Your task to perform on an android device: clear all cookies in the chrome app Image 0: 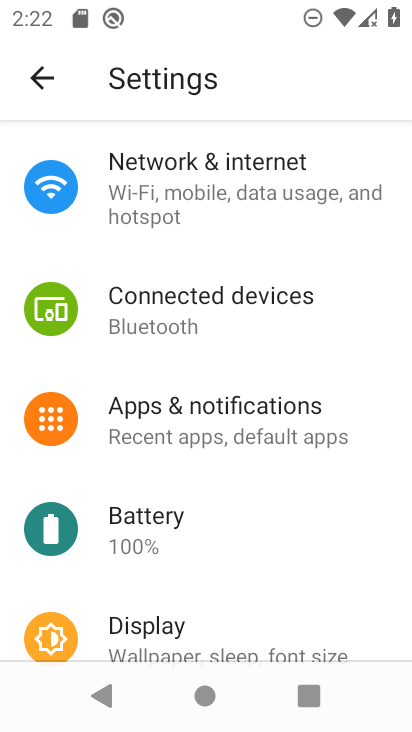
Step 0: press home button
Your task to perform on an android device: clear all cookies in the chrome app Image 1: 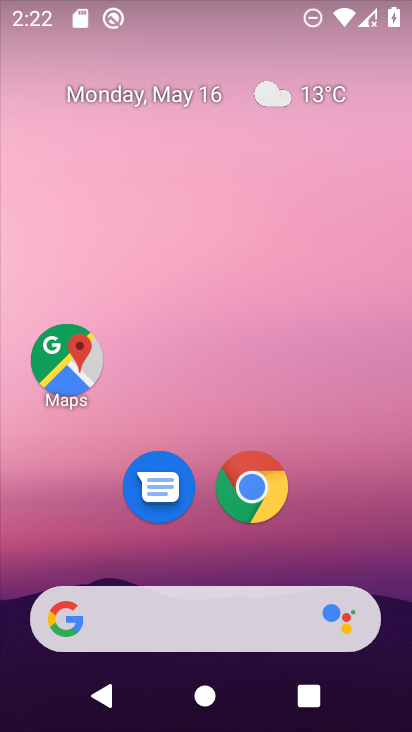
Step 1: click (258, 465)
Your task to perform on an android device: clear all cookies in the chrome app Image 2: 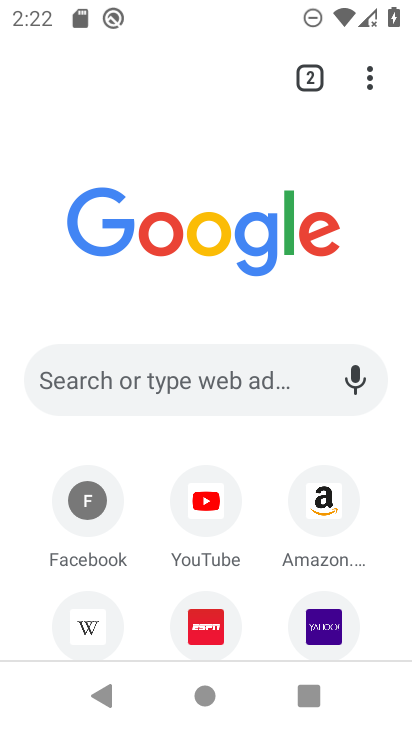
Step 2: click (370, 78)
Your task to perform on an android device: clear all cookies in the chrome app Image 3: 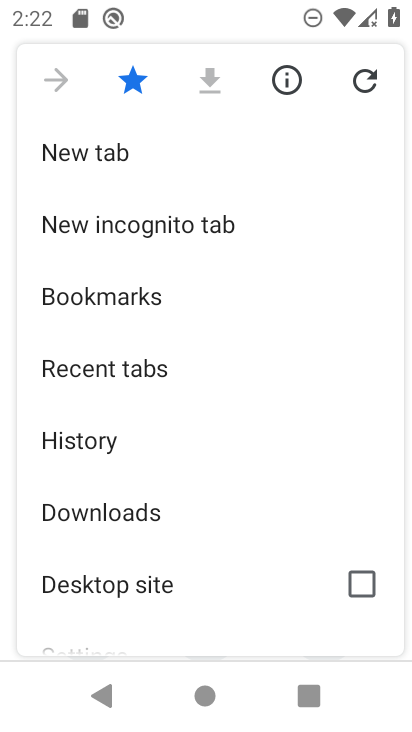
Step 3: click (66, 436)
Your task to perform on an android device: clear all cookies in the chrome app Image 4: 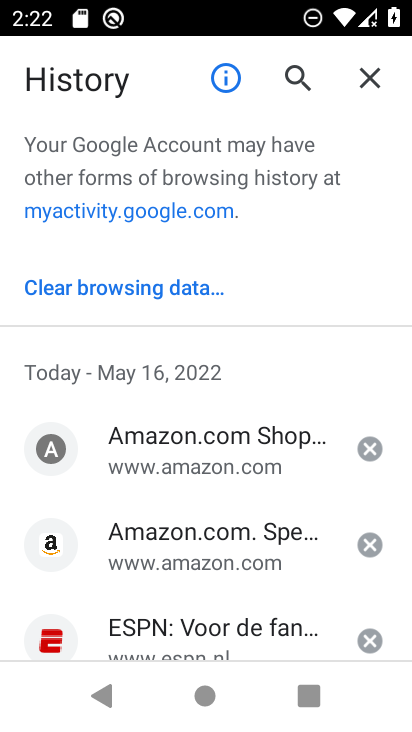
Step 4: click (140, 279)
Your task to perform on an android device: clear all cookies in the chrome app Image 5: 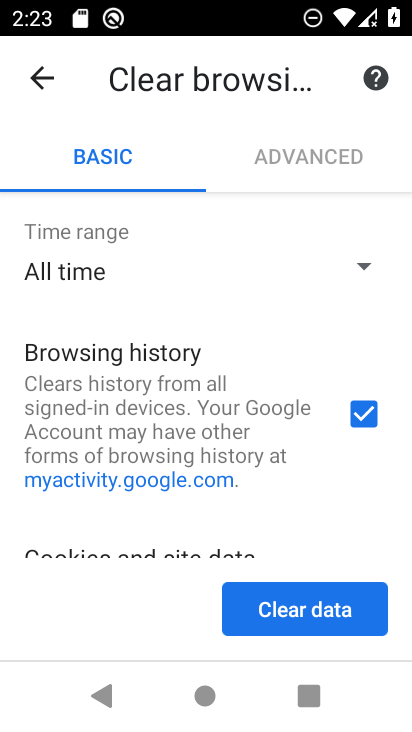
Step 5: click (327, 603)
Your task to perform on an android device: clear all cookies in the chrome app Image 6: 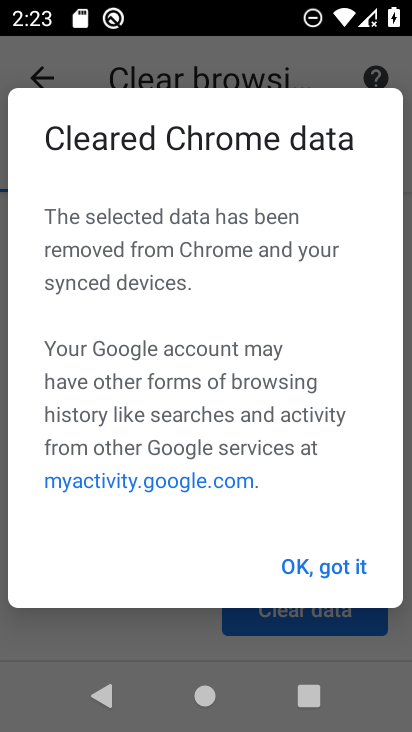
Step 6: click (306, 564)
Your task to perform on an android device: clear all cookies in the chrome app Image 7: 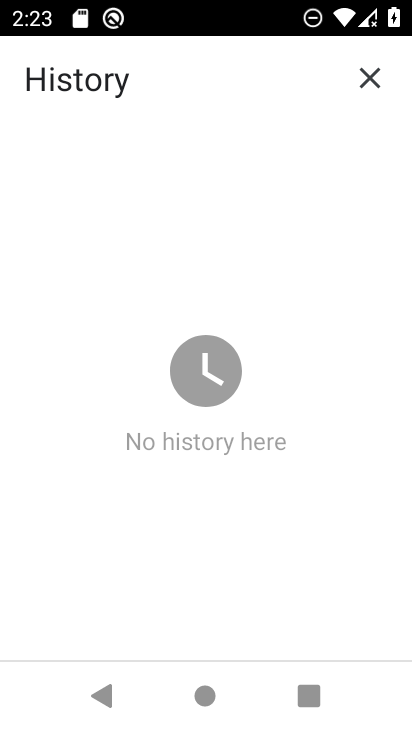
Step 7: task complete